Your task to perform on an android device: turn off location history Image 0: 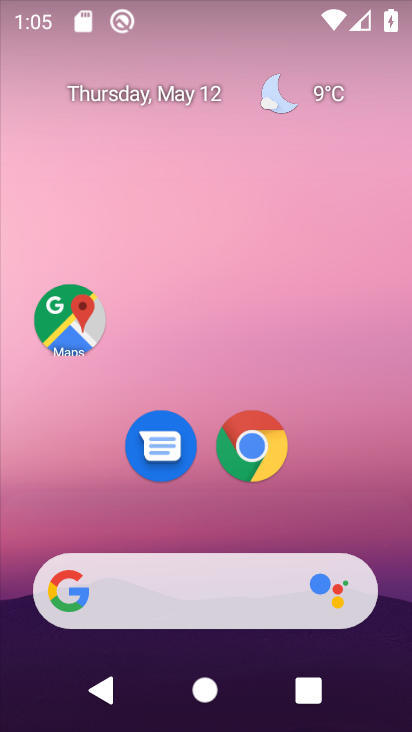
Step 0: drag from (161, 477) to (279, 101)
Your task to perform on an android device: turn off location history Image 1: 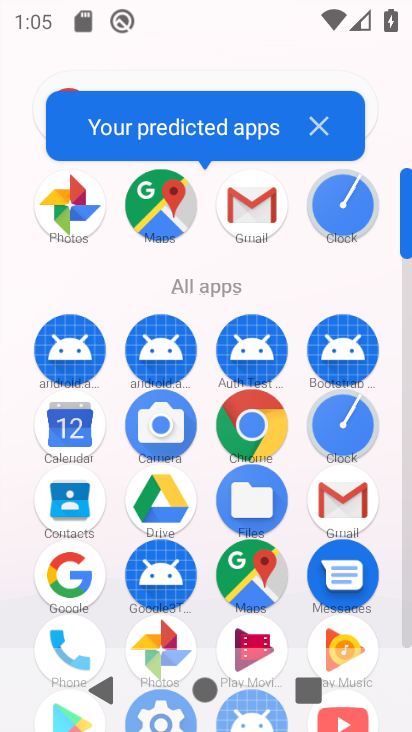
Step 1: drag from (214, 664) to (302, 344)
Your task to perform on an android device: turn off location history Image 2: 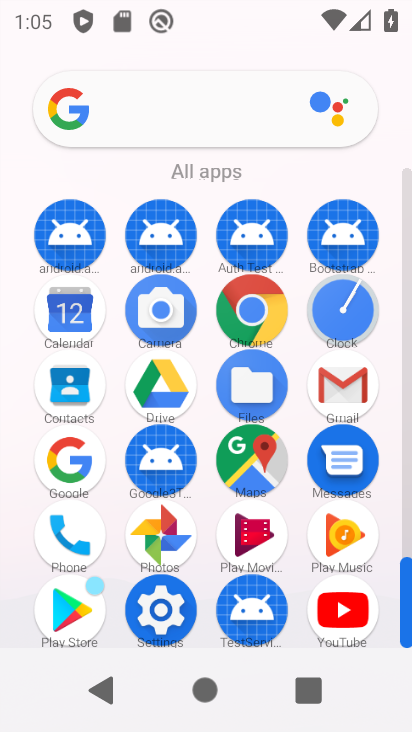
Step 2: click (168, 622)
Your task to perform on an android device: turn off location history Image 3: 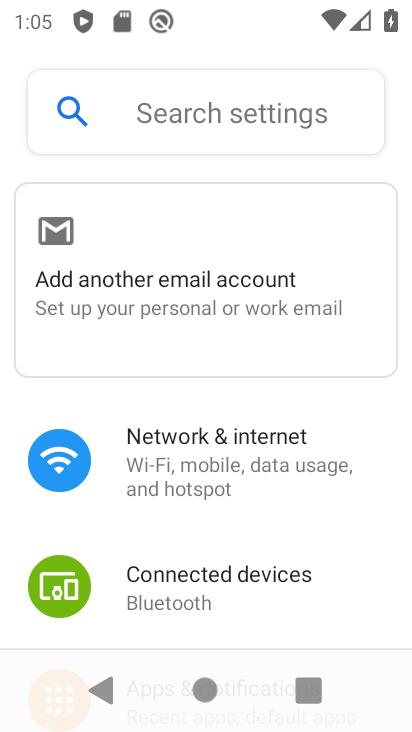
Step 3: drag from (207, 577) to (272, 180)
Your task to perform on an android device: turn off location history Image 4: 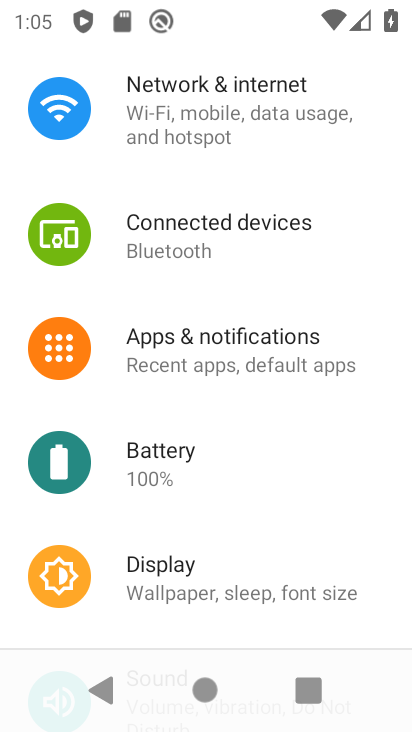
Step 4: drag from (205, 576) to (275, 279)
Your task to perform on an android device: turn off location history Image 5: 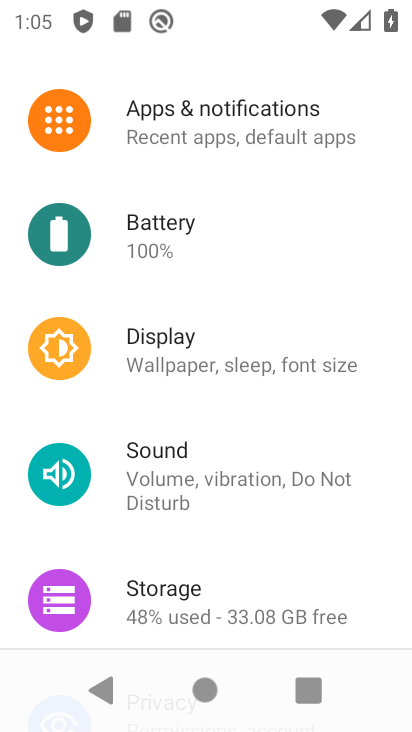
Step 5: drag from (159, 603) to (233, 225)
Your task to perform on an android device: turn off location history Image 6: 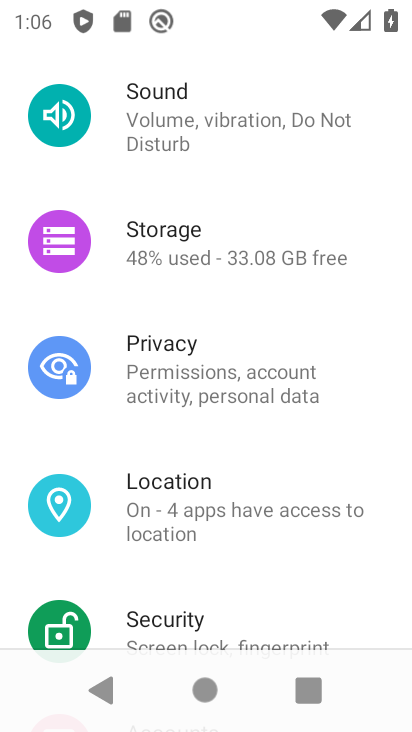
Step 6: click (207, 529)
Your task to perform on an android device: turn off location history Image 7: 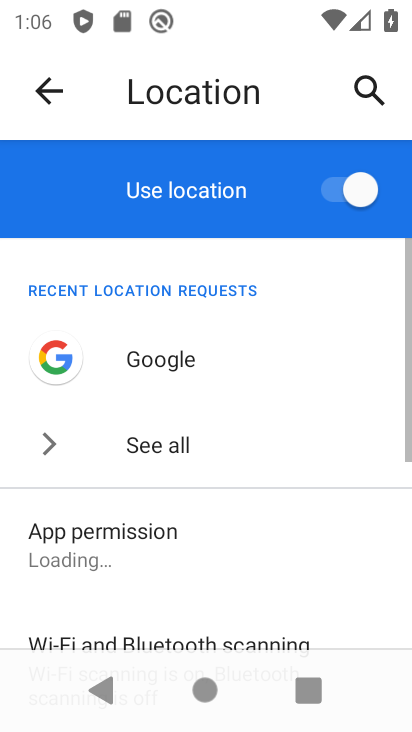
Step 7: drag from (174, 611) to (244, 271)
Your task to perform on an android device: turn off location history Image 8: 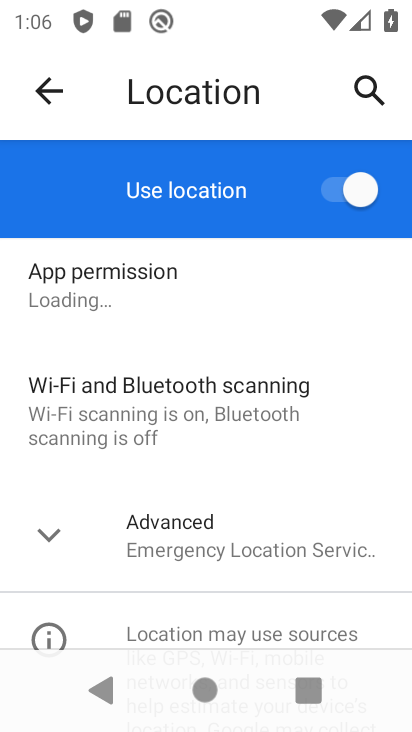
Step 8: click (208, 541)
Your task to perform on an android device: turn off location history Image 9: 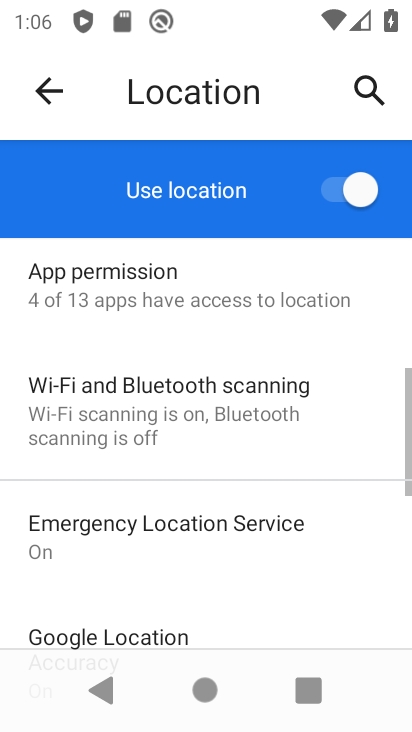
Step 9: drag from (224, 601) to (330, 175)
Your task to perform on an android device: turn off location history Image 10: 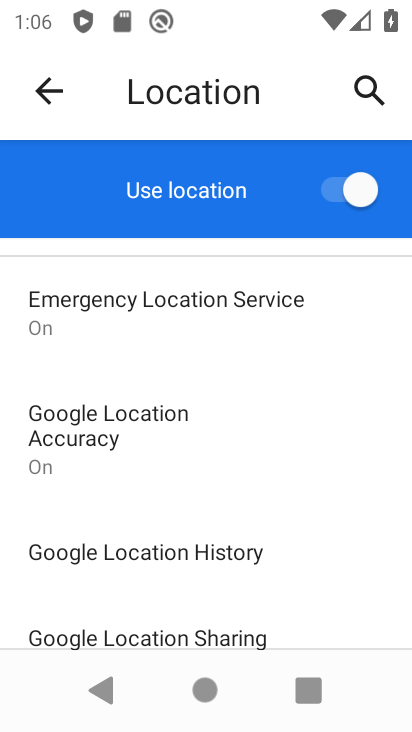
Step 10: drag from (238, 614) to (285, 369)
Your task to perform on an android device: turn off location history Image 11: 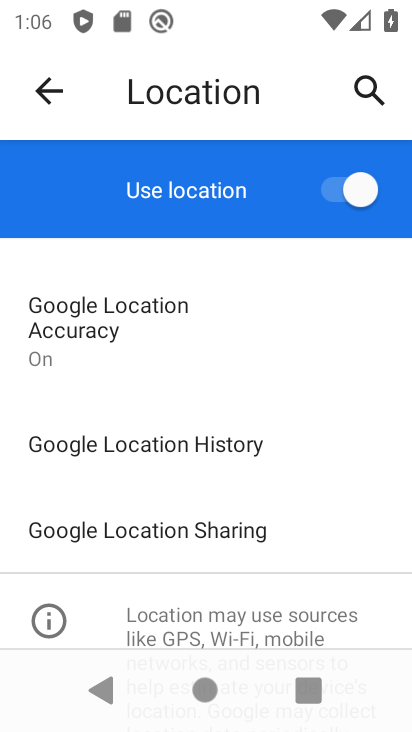
Step 11: click (197, 440)
Your task to perform on an android device: turn off location history Image 12: 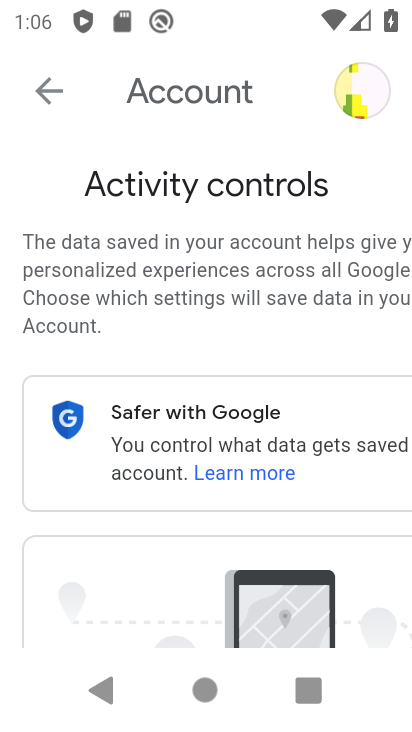
Step 12: task complete